Your task to perform on an android device: Open Yahoo.com Image 0: 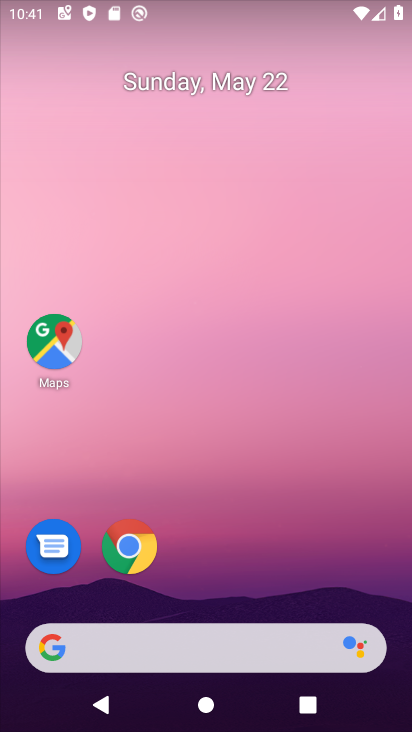
Step 0: click (129, 553)
Your task to perform on an android device: Open Yahoo.com Image 1: 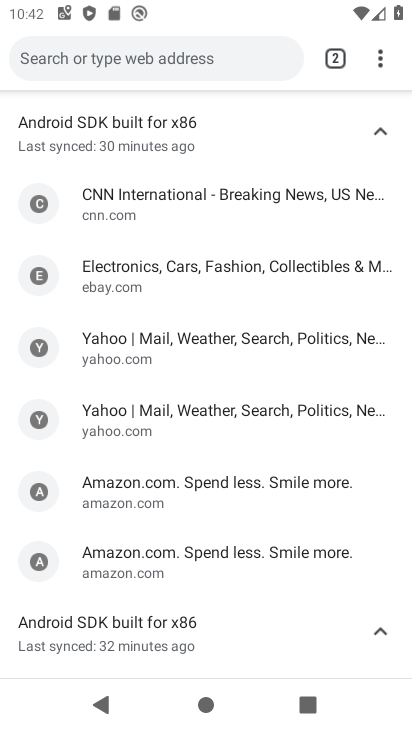
Step 1: click (209, 422)
Your task to perform on an android device: Open Yahoo.com Image 2: 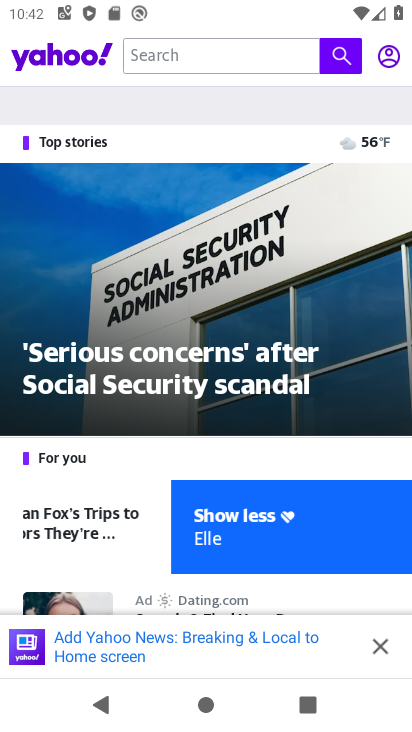
Step 2: task complete